Your task to perform on an android device: Go to Amazon Image 0: 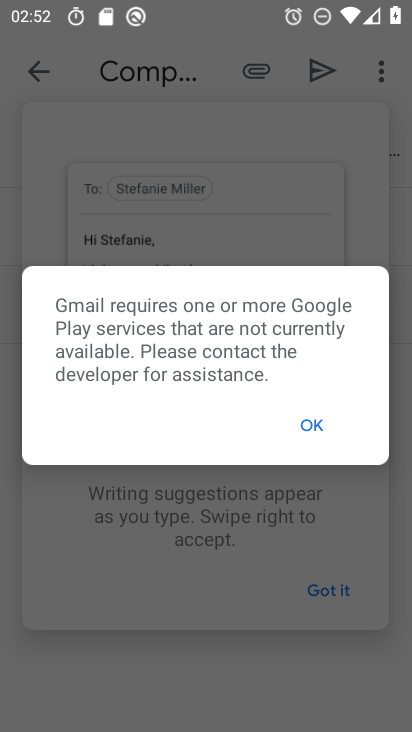
Step 0: press home button
Your task to perform on an android device: Go to Amazon Image 1: 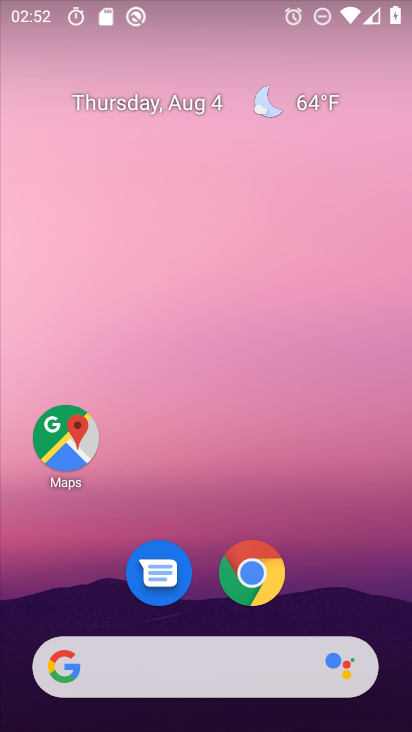
Step 1: drag from (323, 523) to (326, 149)
Your task to perform on an android device: Go to Amazon Image 2: 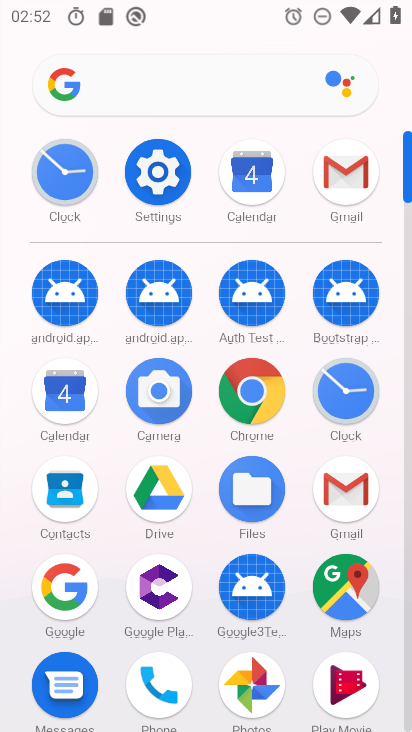
Step 2: click (257, 391)
Your task to perform on an android device: Go to Amazon Image 3: 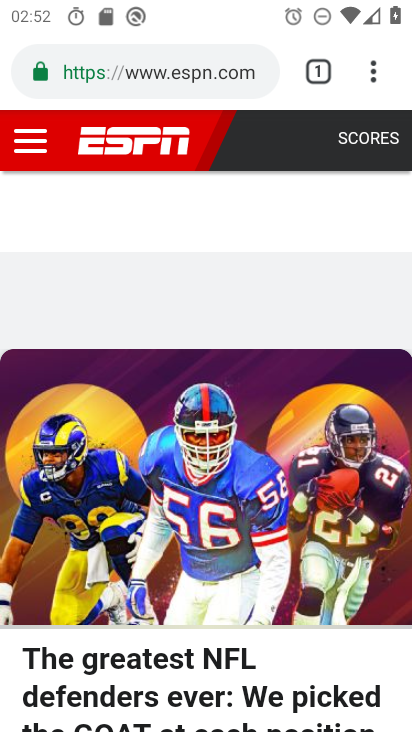
Step 3: click (202, 81)
Your task to perform on an android device: Go to Amazon Image 4: 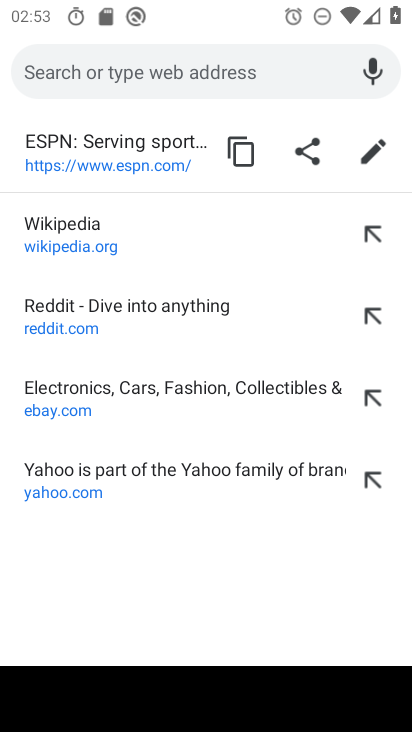
Step 4: type "amazon"
Your task to perform on an android device: Go to Amazon Image 5: 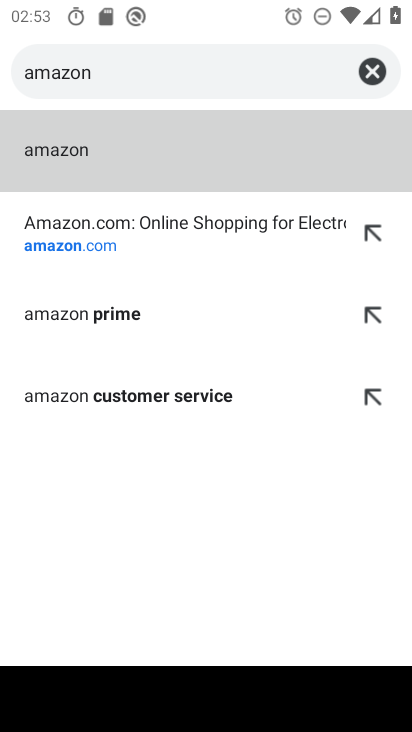
Step 5: click (95, 249)
Your task to perform on an android device: Go to Amazon Image 6: 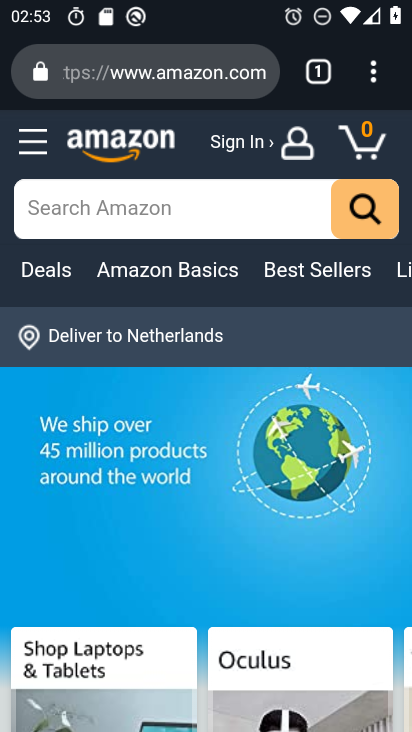
Step 6: task complete